Your task to perform on an android device: Open sound settings Image 0: 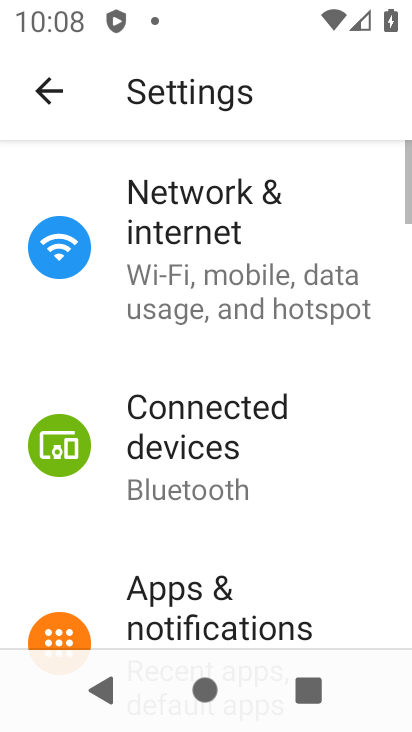
Step 0: press home button
Your task to perform on an android device: Open sound settings Image 1: 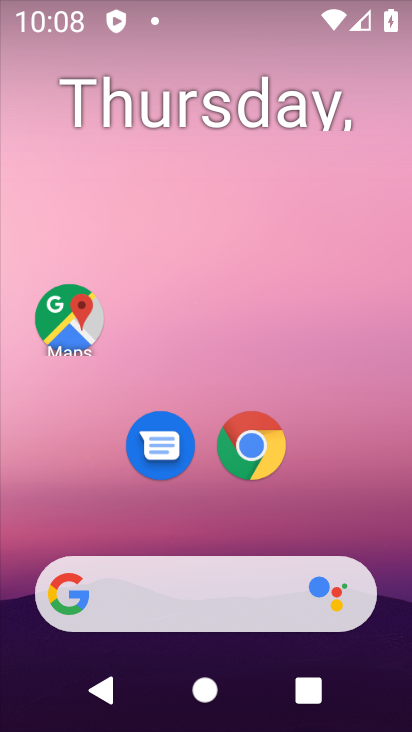
Step 1: drag from (371, 556) to (271, 55)
Your task to perform on an android device: Open sound settings Image 2: 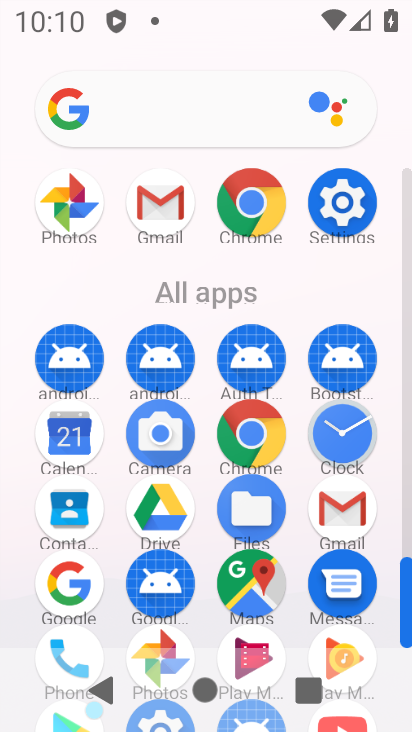
Step 2: click (336, 230)
Your task to perform on an android device: Open sound settings Image 3: 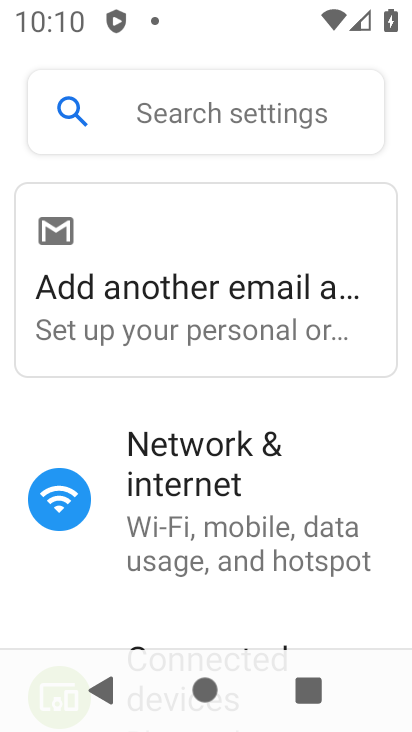
Step 3: drag from (256, 552) to (231, 106)
Your task to perform on an android device: Open sound settings Image 4: 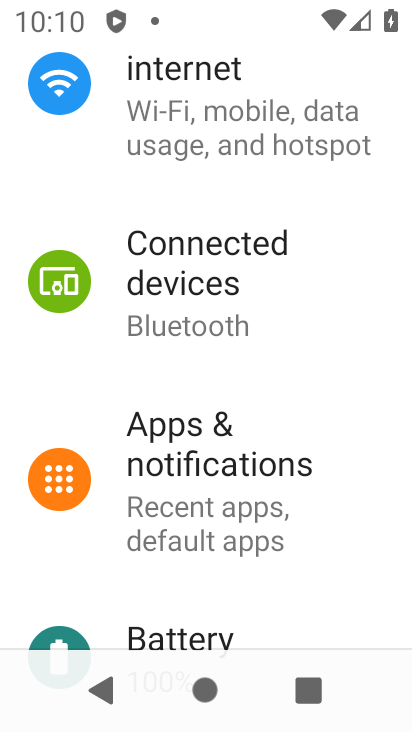
Step 4: drag from (196, 565) to (235, 152)
Your task to perform on an android device: Open sound settings Image 5: 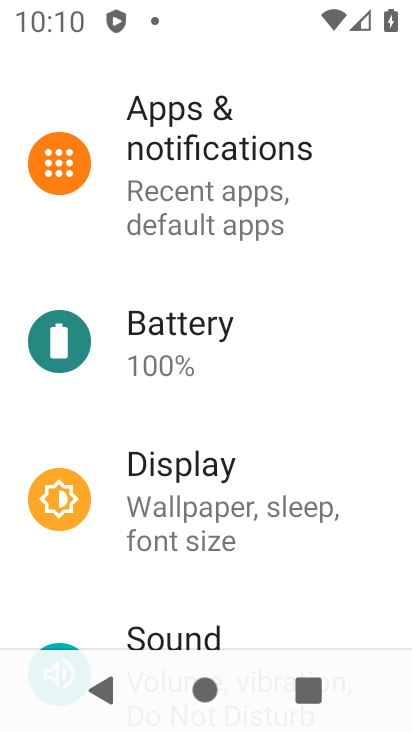
Step 5: click (151, 631)
Your task to perform on an android device: Open sound settings Image 6: 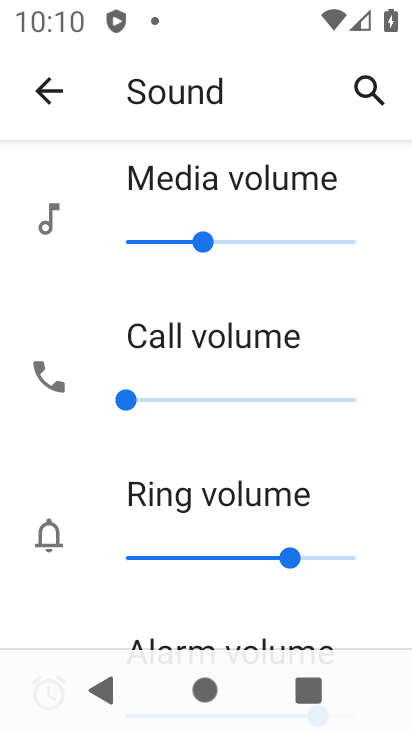
Step 6: task complete